Your task to perform on an android device: What is the news today? Image 0: 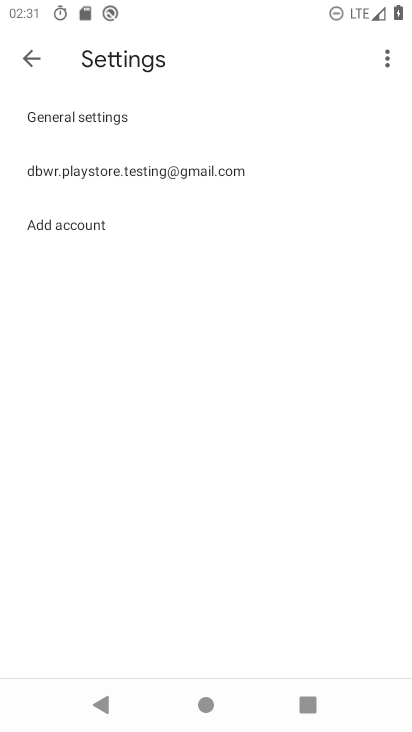
Step 0: press home button
Your task to perform on an android device: What is the news today? Image 1: 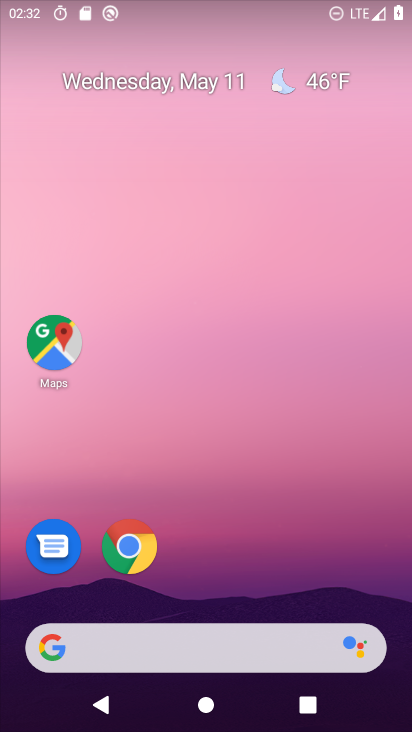
Step 1: drag from (263, 620) to (288, 177)
Your task to perform on an android device: What is the news today? Image 2: 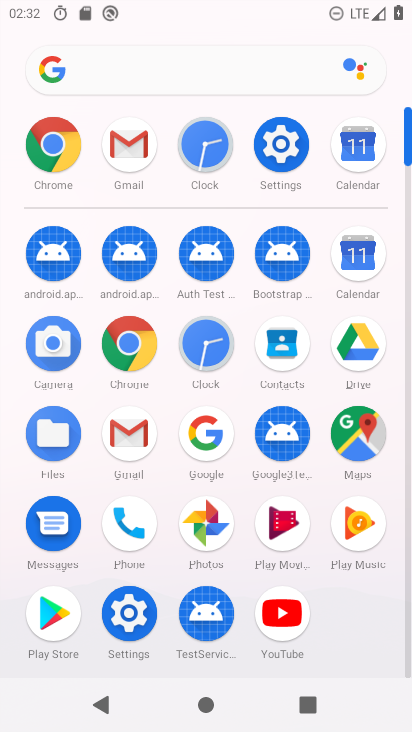
Step 2: click (139, 73)
Your task to perform on an android device: What is the news today? Image 3: 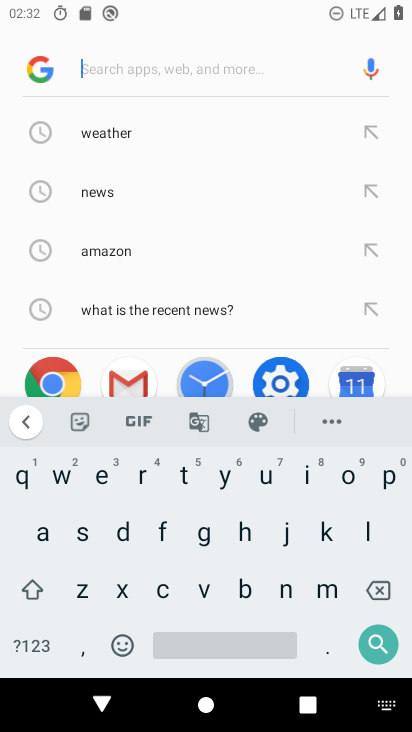
Step 3: click (101, 191)
Your task to perform on an android device: What is the news today? Image 4: 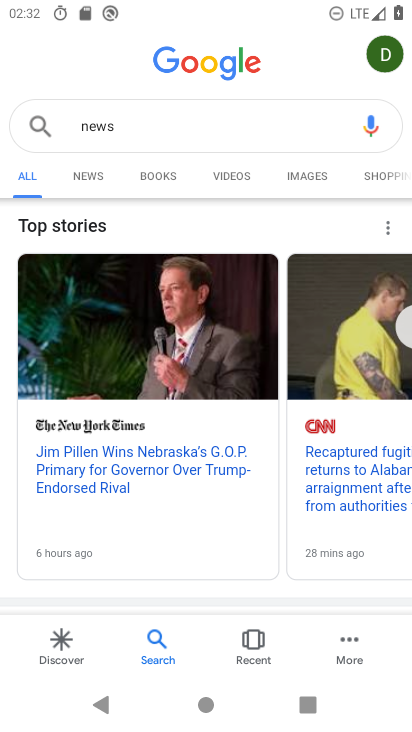
Step 4: task complete